Your task to perform on an android device: turn on notifications settings in the gmail app Image 0: 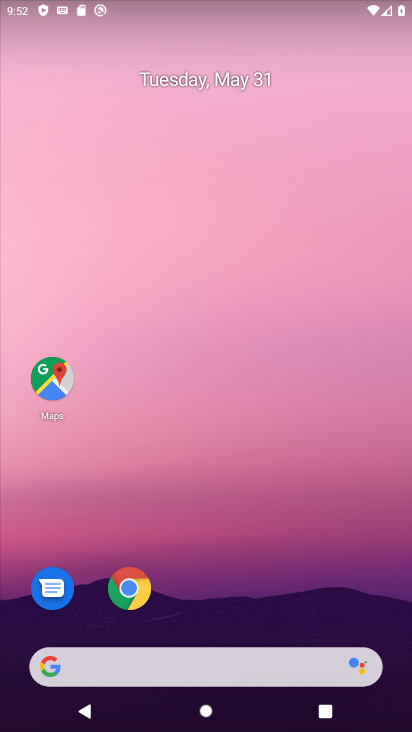
Step 0: drag from (256, 716) to (279, 0)
Your task to perform on an android device: turn on notifications settings in the gmail app Image 1: 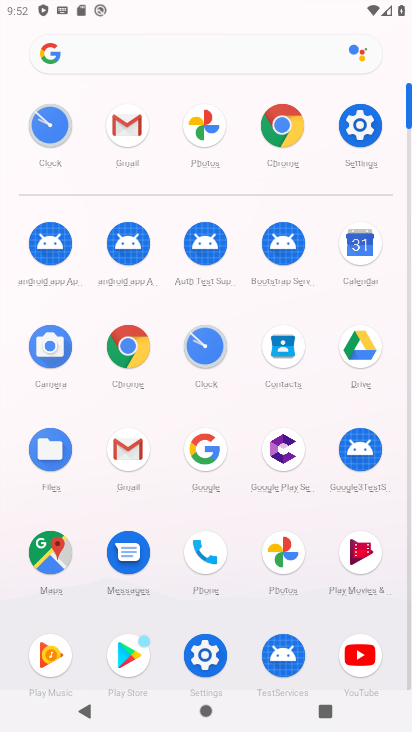
Step 1: click (128, 459)
Your task to perform on an android device: turn on notifications settings in the gmail app Image 2: 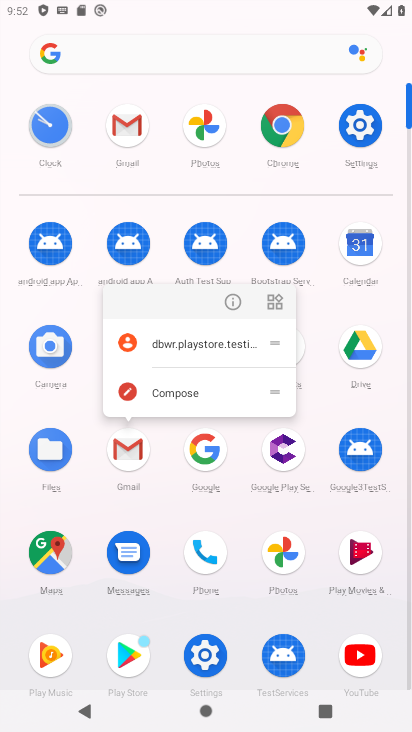
Step 2: click (226, 301)
Your task to perform on an android device: turn on notifications settings in the gmail app Image 3: 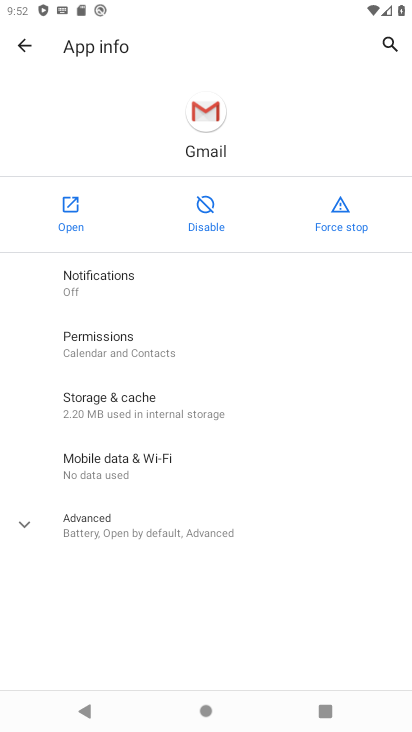
Step 3: click (201, 270)
Your task to perform on an android device: turn on notifications settings in the gmail app Image 4: 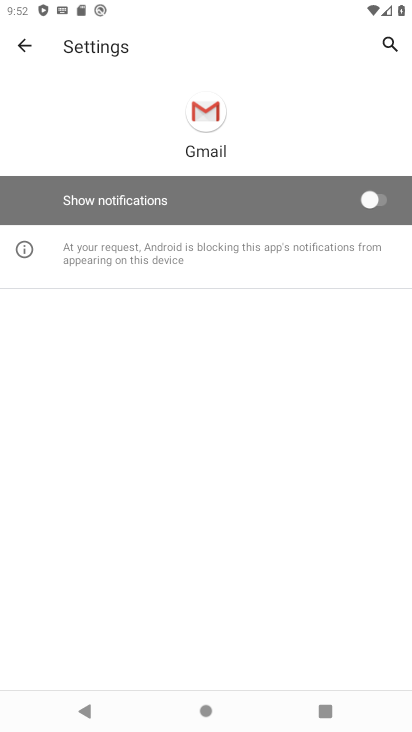
Step 4: click (376, 203)
Your task to perform on an android device: turn on notifications settings in the gmail app Image 5: 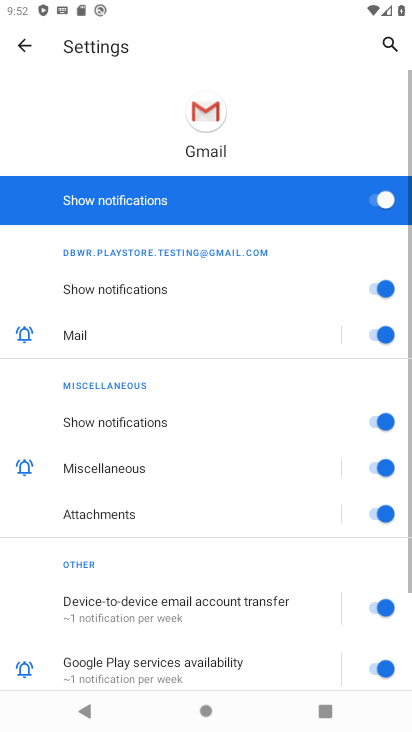
Step 5: task complete